Your task to perform on an android device: open app "Facebook Lite" Image 0: 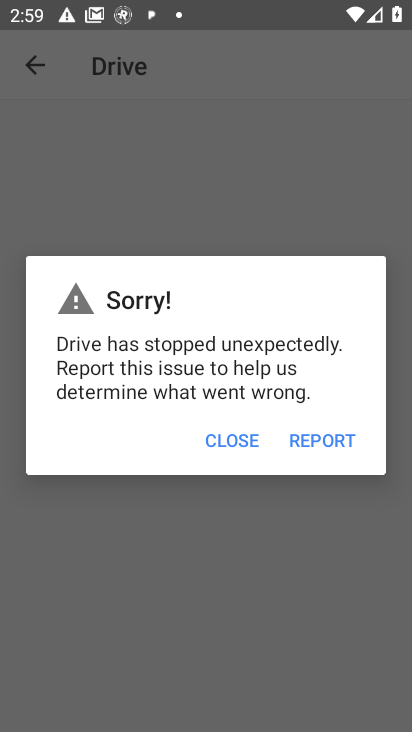
Step 0: press home button
Your task to perform on an android device: open app "Facebook Lite" Image 1: 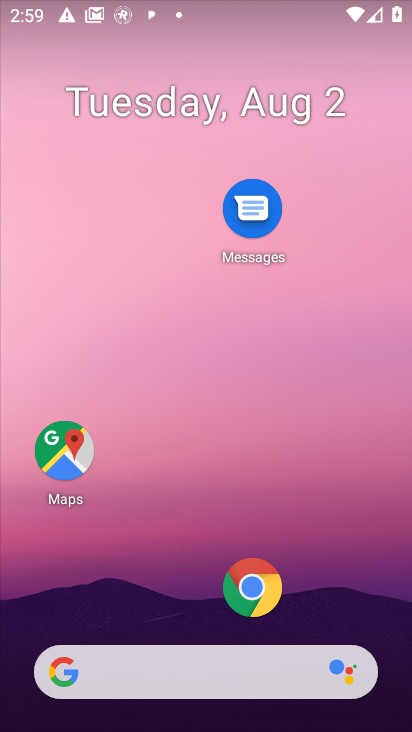
Step 1: drag from (158, 588) to (130, 109)
Your task to perform on an android device: open app "Facebook Lite" Image 2: 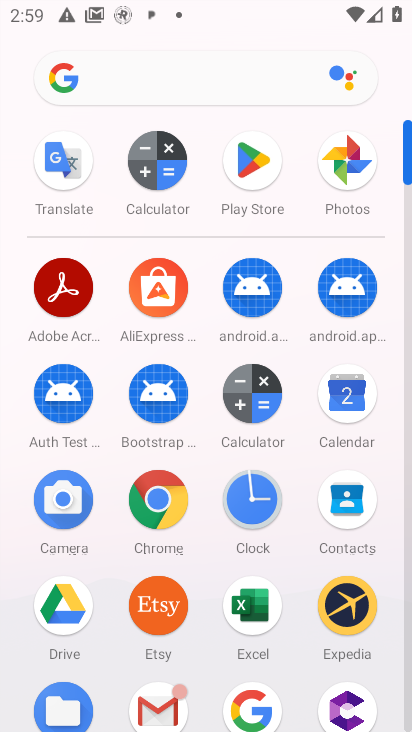
Step 2: click (240, 150)
Your task to perform on an android device: open app "Facebook Lite" Image 3: 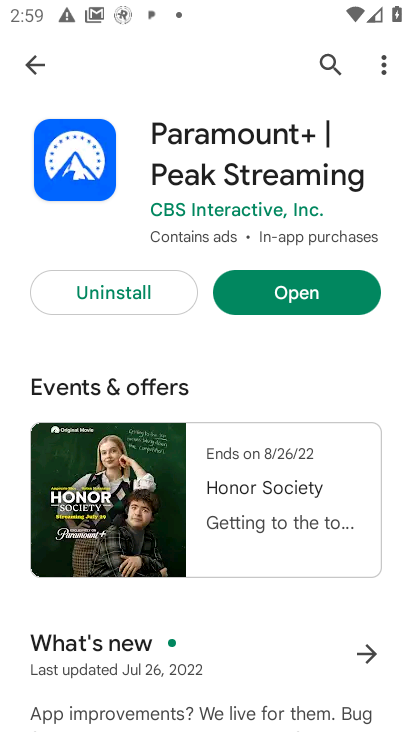
Step 3: click (313, 46)
Your task to perform on an android device: open app "Facebook Lite" Image 4: 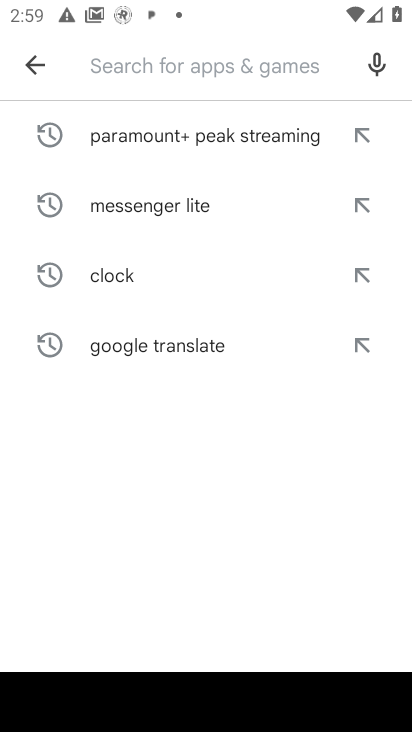
Step 4: type "Facebook Lite"
Your task to perform on an android device: open app "Facebook Lite" Image 5: 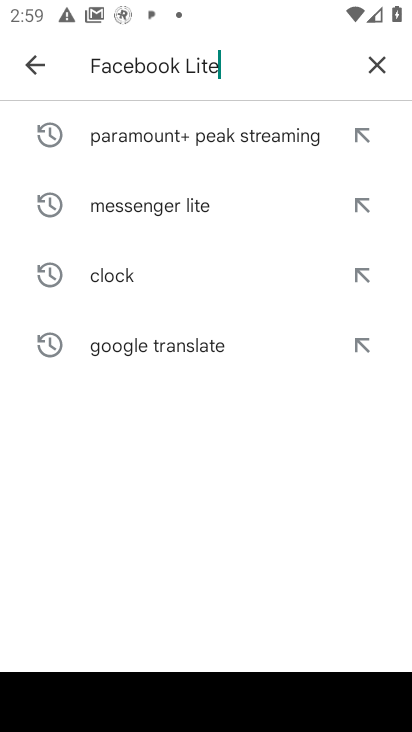
Step 5: type ""
Your task to perform on an android device: open app "Facebook Lite" Image 6: 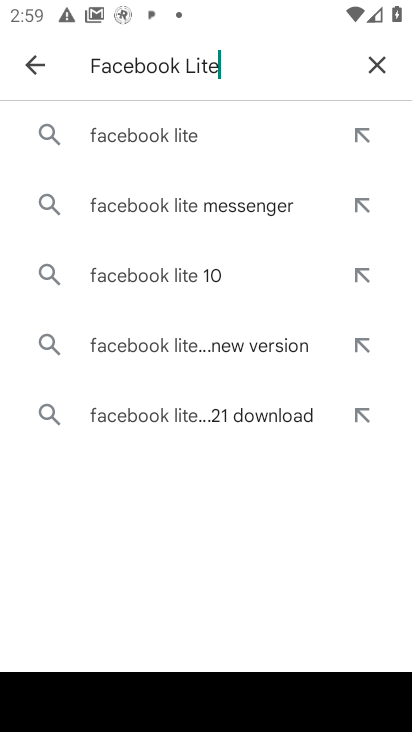
Step 6: click (156, 139)
Your task to perform on an android device: open app "Facebook Lite" Image 7: 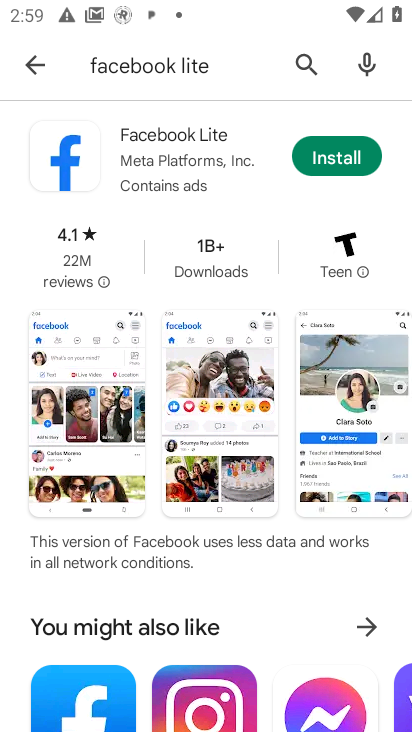
Step 7: task complete